Your task to perform on an android device: Go to sound settings Image 0: 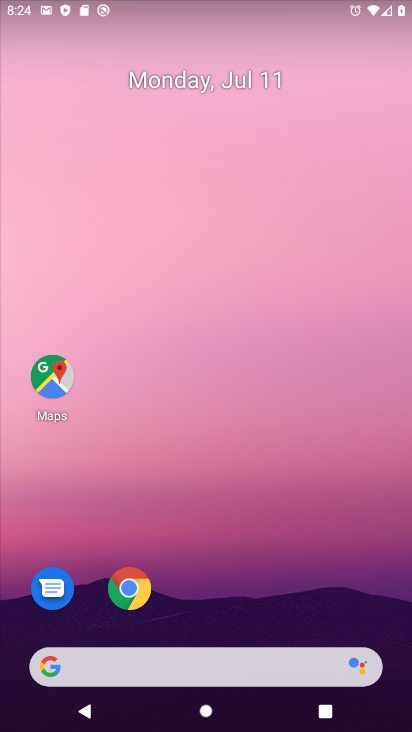
Step 0: drag from (181, 668) to (382, 57)
Your task to perform on an android device: Go to sound settings Image 1: 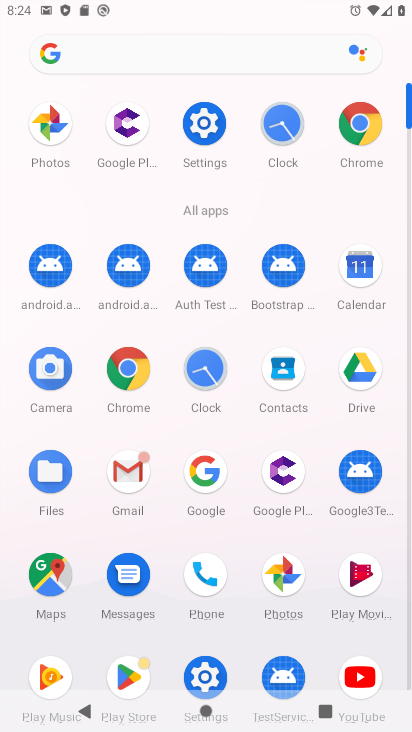
Step 1: click (204, 124)
Your task to perform on an android device: Go to sound settings Image 2: 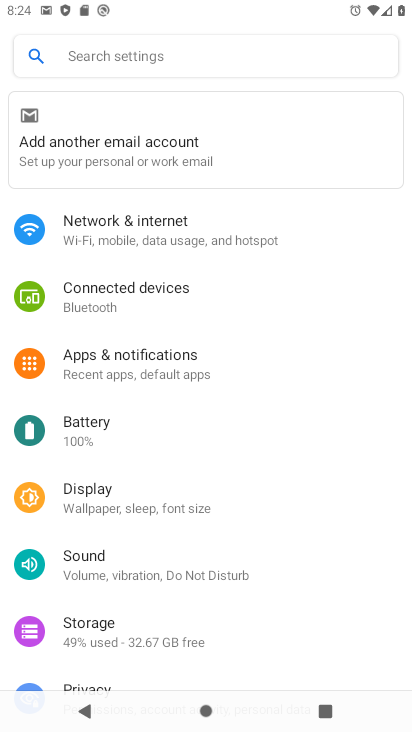
Step 2: click (75, 568)
Your task to perform on an android device: Go to sound settings Image 3: 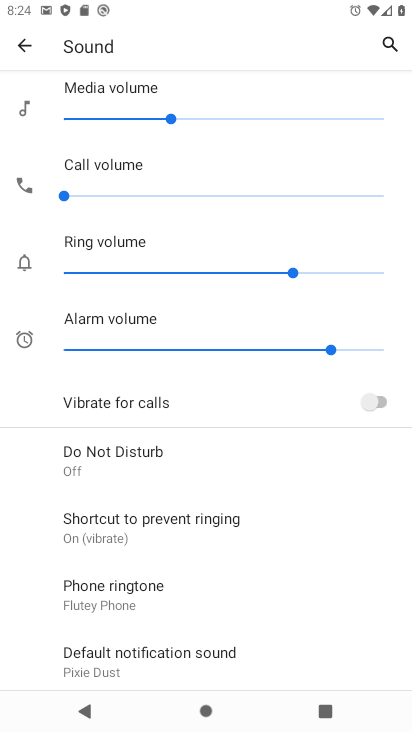
Step 3: task complete